Your task to perform on an android device: change the clock display to show seconds Image 0: 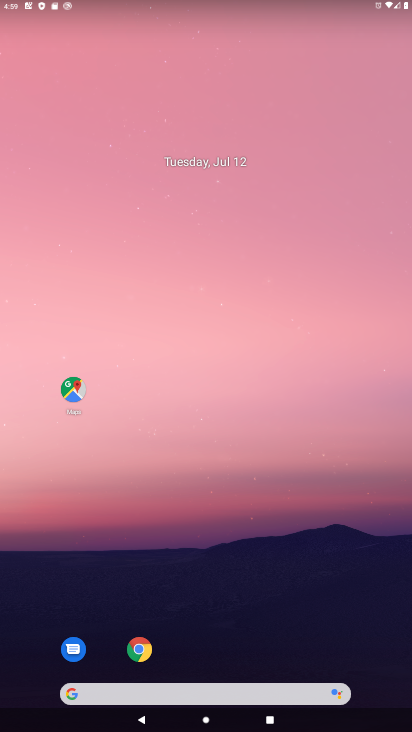
Step 0: drag from (194, 693) to (207, 38)
Your task to perform on an android device: change the clock display to show seconds Image 1: 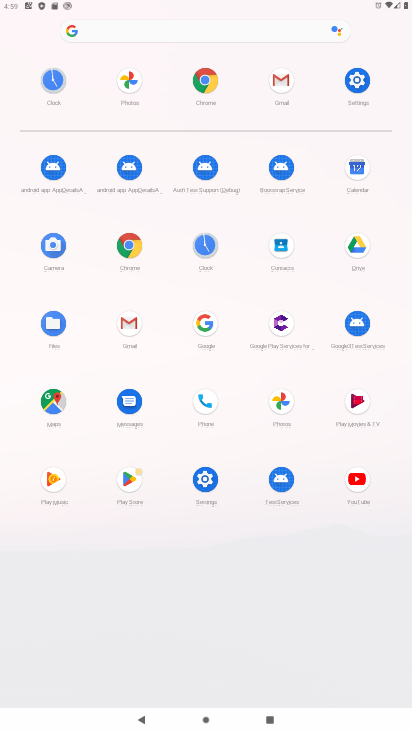
Step 1: click (208, 246)
Your task to perform on an android device: change the clock display to show seconds Image 2: 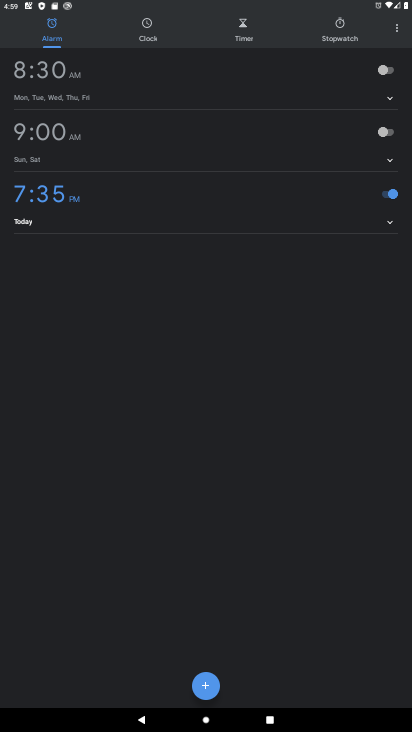
Step 2: click (398, 26)
Your task to perform on an android device: change the clock display to show seconds Image 3: 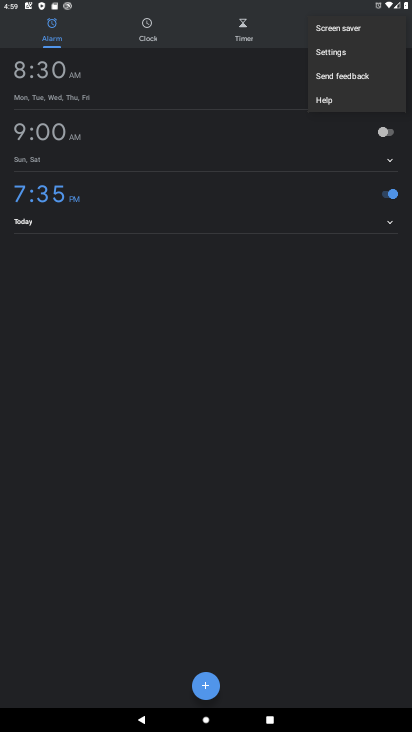
Step 3: click (337, 56)
Your task to perform on an android device: change the clock display to show seconds Image 4: 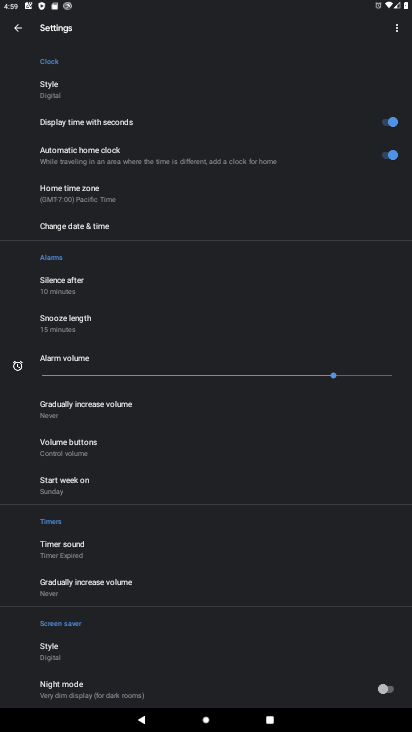
Step 4: task complete